Your task to perform on an android device: Go to location settings Image 0: 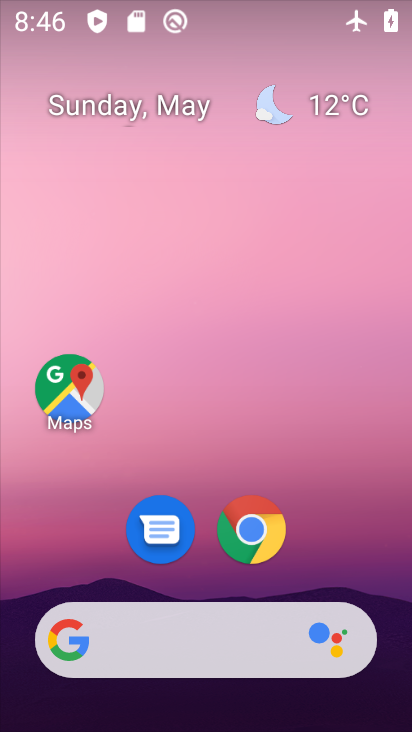
Step 0: drag from (301, 542) to (291, 34)
Your task to perform on an android device: Go to location settings Image 1: 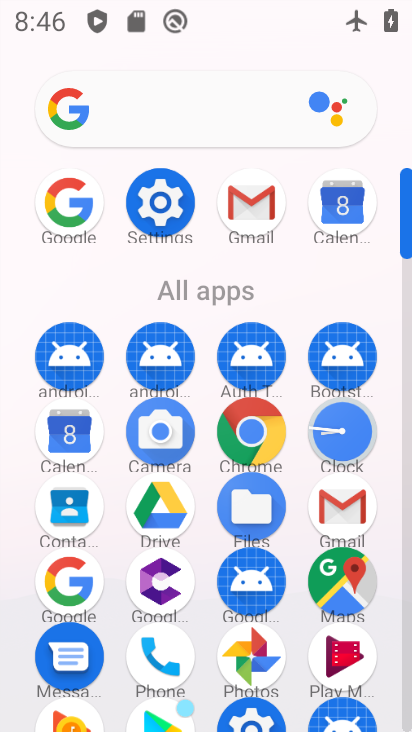
Step 1: click (173, 199)
Your task to perform on an android device: Go to location settings Image 2: 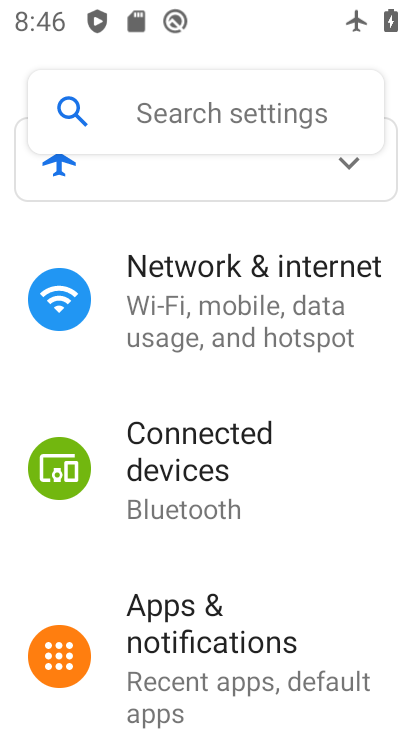
Step 2: drag from (337, 619) to (363, 266)
Your task to perform on an android device: Go to location settings Image 3: 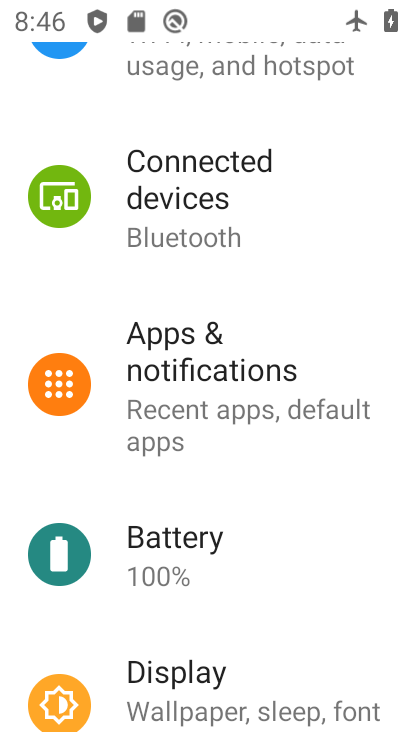
Step 3: drag from (264, 638) to (354, 272)
Your task to perform on an android device: Go to location settings Image 4: 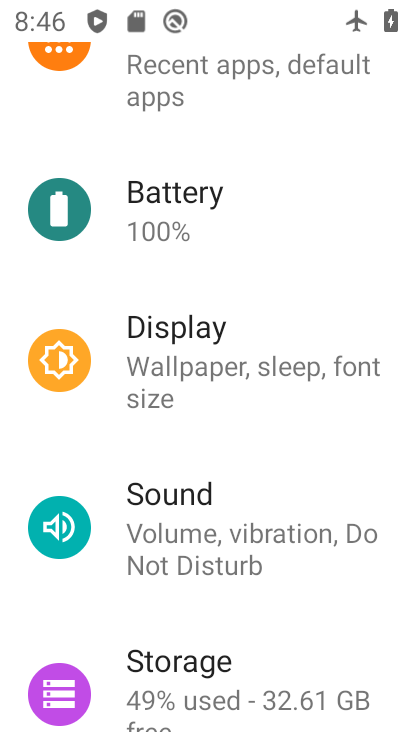
Step 4: drag from (234, 592) to (307, 208)
Your task to perform on an android device: Go to location settings Image 5: 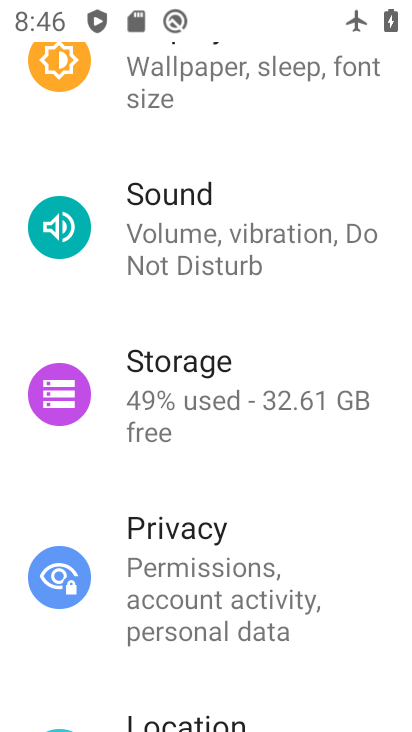
Step 5: click (186, 718)
Your task to perform on an android device: Go to location settings Image 6: 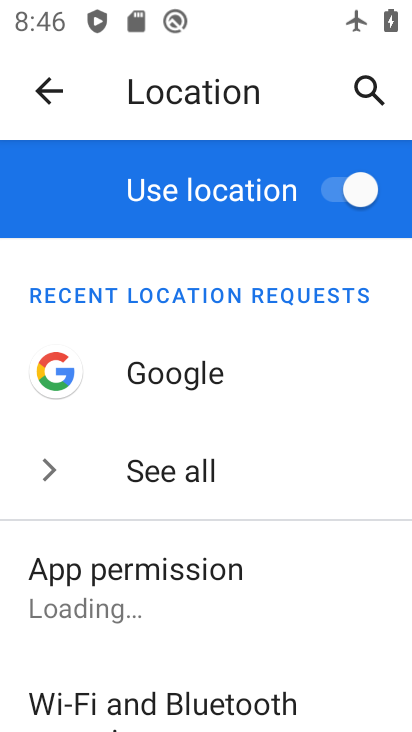
Step 6: task complete